Your task to perform on an android device: open sync settings in chrome Image 0: 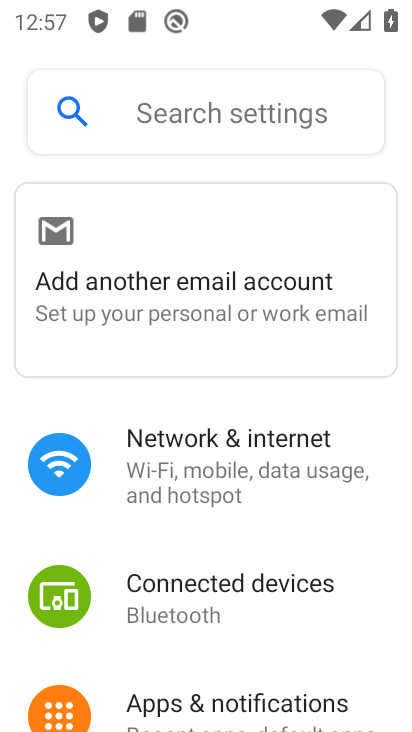
Step 0: press home button
Your task to perform on an android device: open sync settings in chrome Image 1: 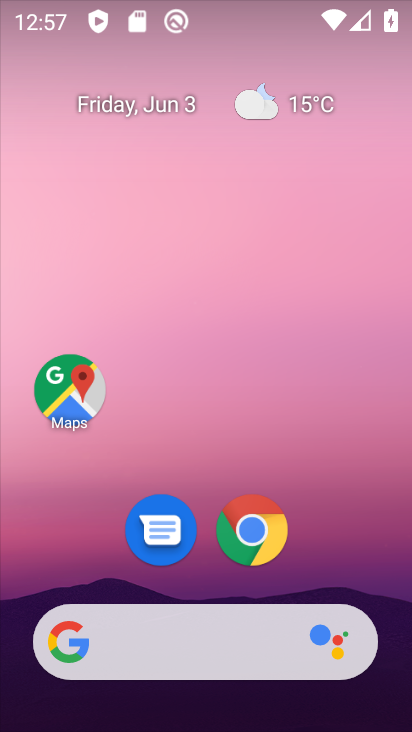
Step 1: click (265, 544)
Your task to perform on an android device: open sync settings in chrome Image 2: 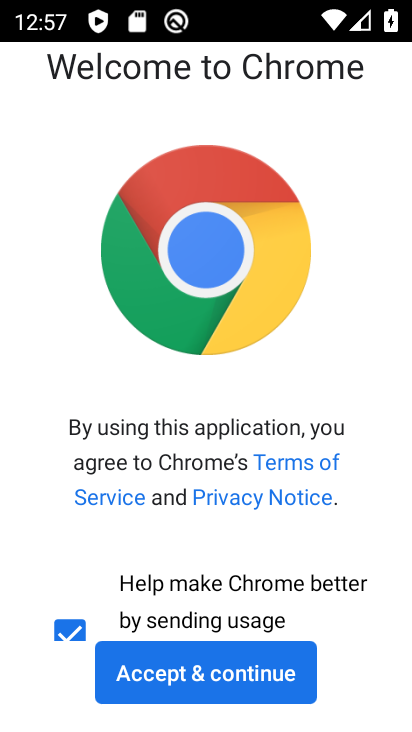
Step 2: click (273, 670)
Your task to perform on an android device: open sync settings in chrome Image 3: 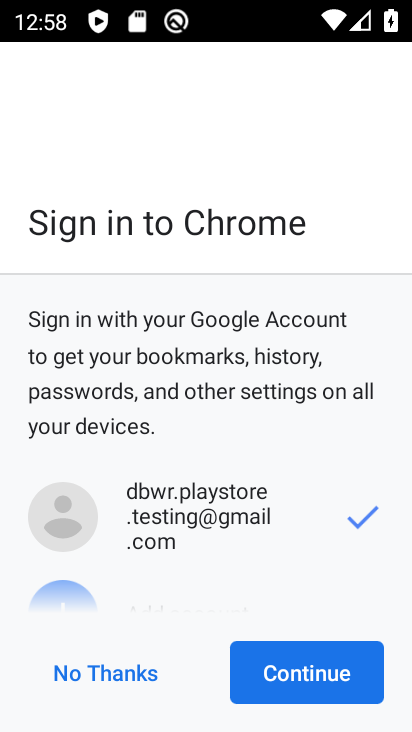
Step 3: click (273, 670)
Your task to perform on an android device: open sync settings in chrome Image 4: 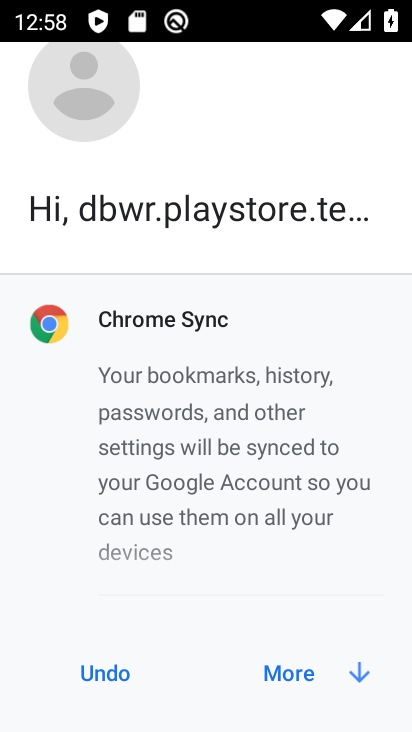
Step 4: click (359, 675)
Your task to perform on an android device: open sync settings in chrome Image 5: 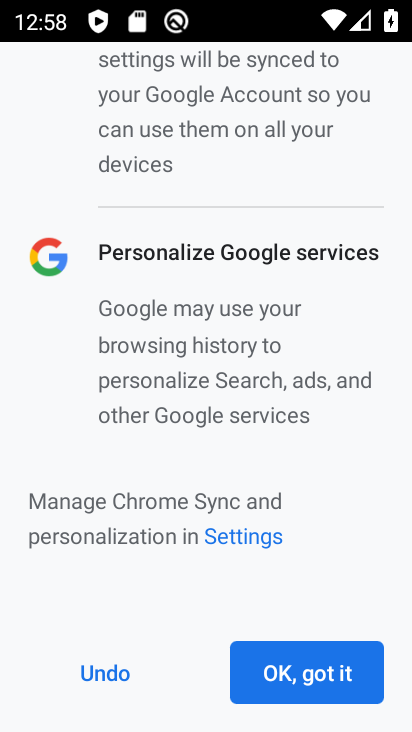
Step 5: click (285, 677)
Your task to perform on an android device: open sync settings in chrome Image 6: 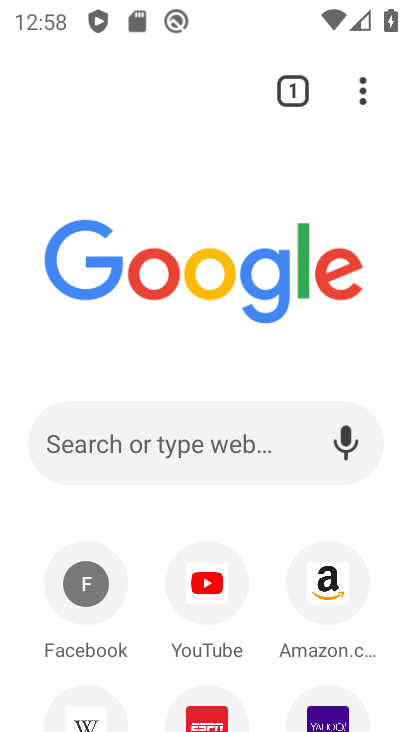
Step 6: click (361, 95)
Your task to perform on an android device: open sync settings in chrome Image 7: 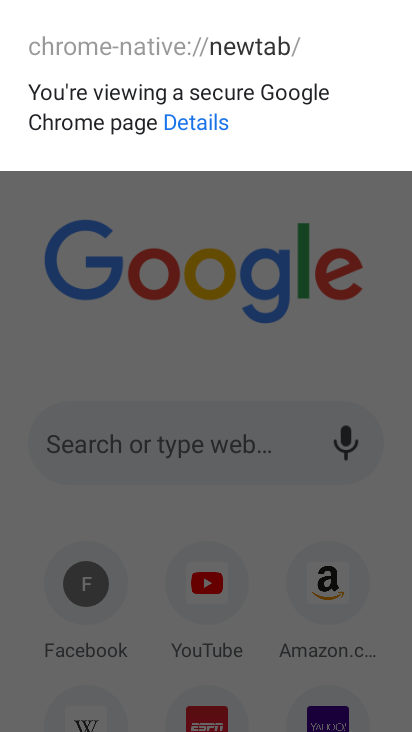
Step 7: click (314, 184)
Your task to perform on an android device: open sync settings in chrome Image 8: 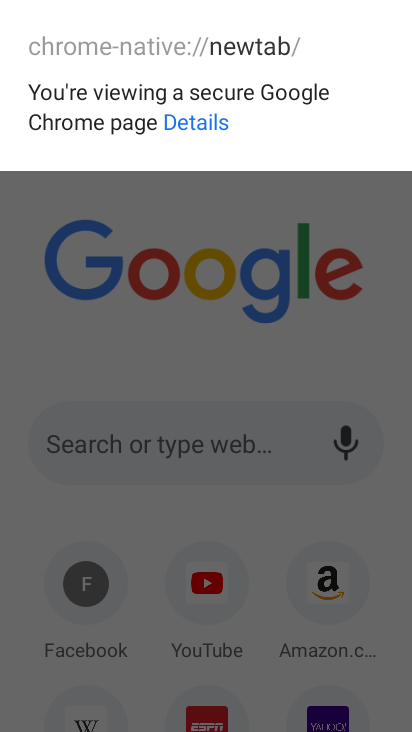
Step 8: click (267, 196)
Your task to perform on an android device: open sync settings in chrome Image 9: 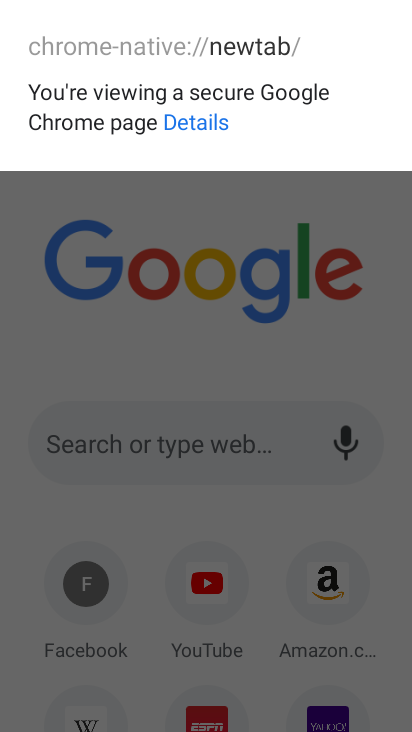
Step 9: click (332, 253)
Your task to perform on an android device: open sync settings in chrome Image 10: 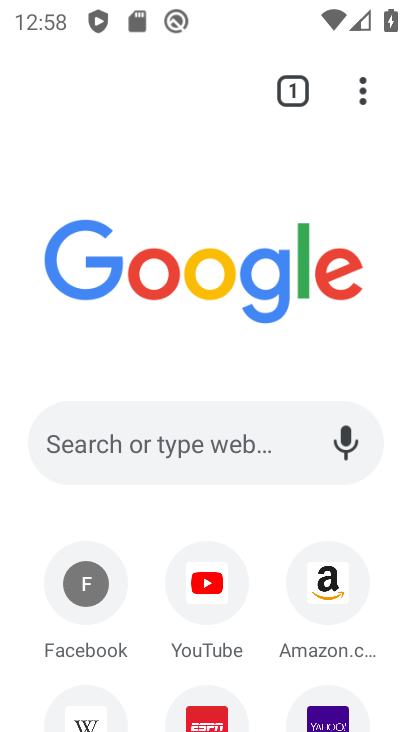
Step 10: click (184, 124)
Your task to perform on an android device: open sync settings in chrome Image 11: 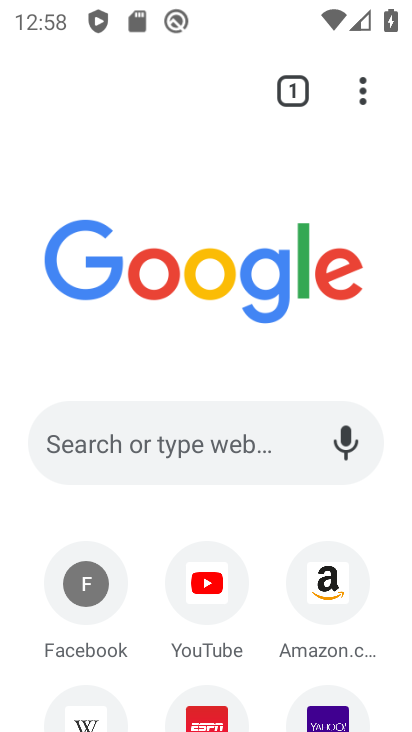
Step 11: click (359, 95)
Your task to perform on an android device: open sync settings in chrome Image 12: 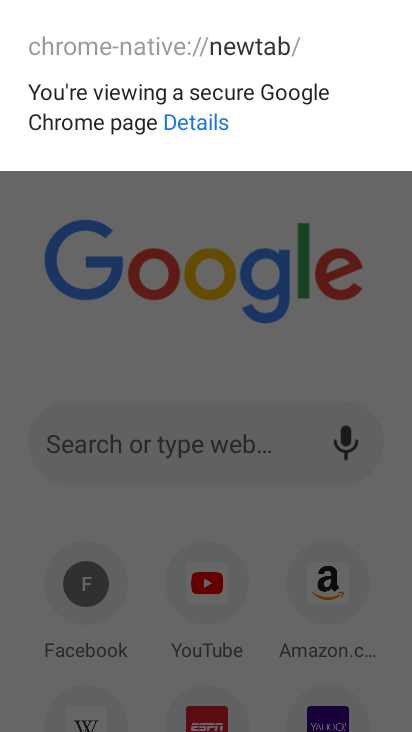
Step 12: drag from (365, 92) to (312, 220)
Your task to perform on an android device: open sync settings in chrome Image 13: 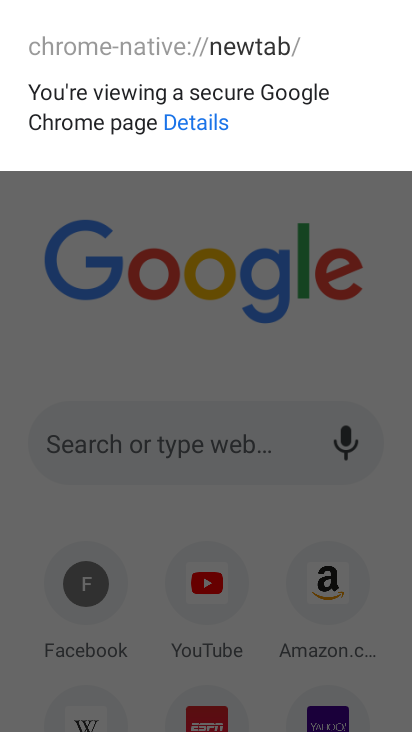
Step 13: click (309, 215)
Your task to perform on an android device: open sync settings in chrome Image 14: 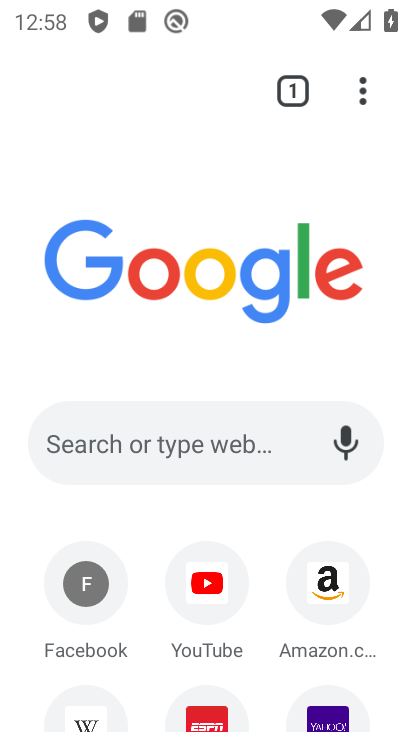
Step 14: drag from (364, 77) to (197, 536)
Your task to perform on an android device: open sync settings in chrome Image 15: 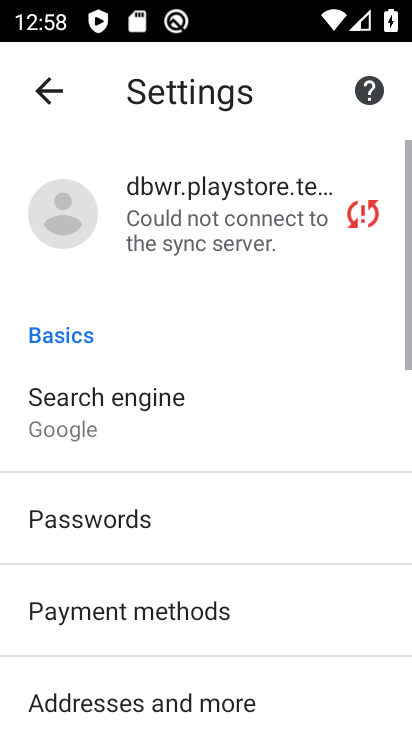
Step 15: click (165, 230)
Your task to perform on an android device: open sync settings in chrome Image 16: 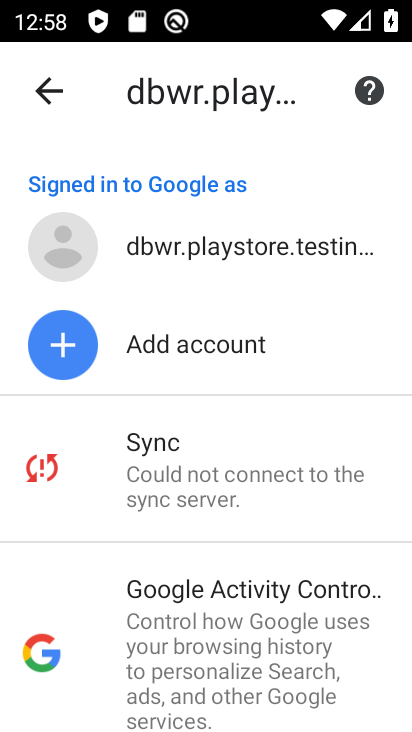
Step 16: click (292, 460)
Your task to perform on an android device: open sync settings in chrome Image 17: 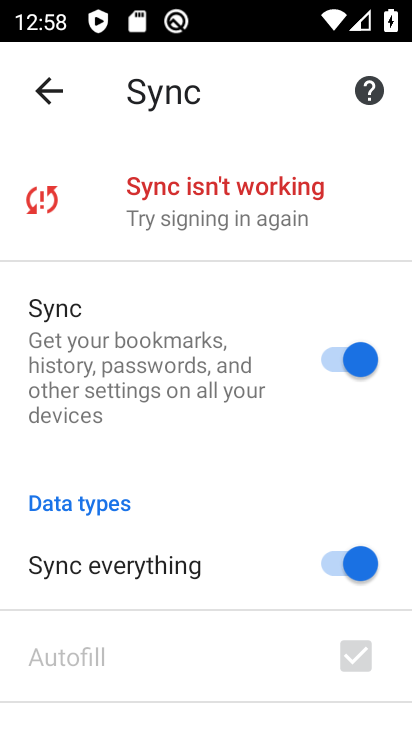
Step 17: task complete